Your task to perform on an android device: Open privacy settings Image 0: 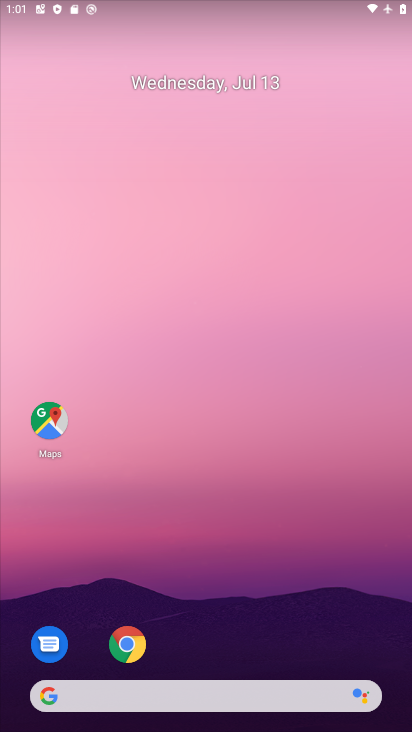
Step 0: drag from (285, 488) to (232, 67)
Your task to perform on an android device: Open privacy settings Image 1: 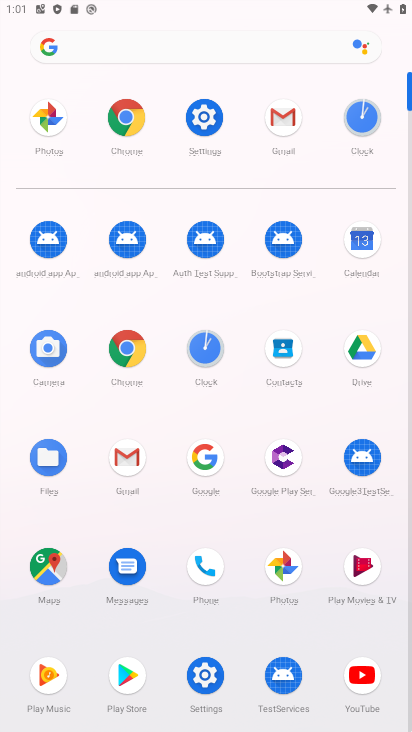
Step 1: click (212, 118)
Your task to perform on an android device: Open privacy settings Image 2: 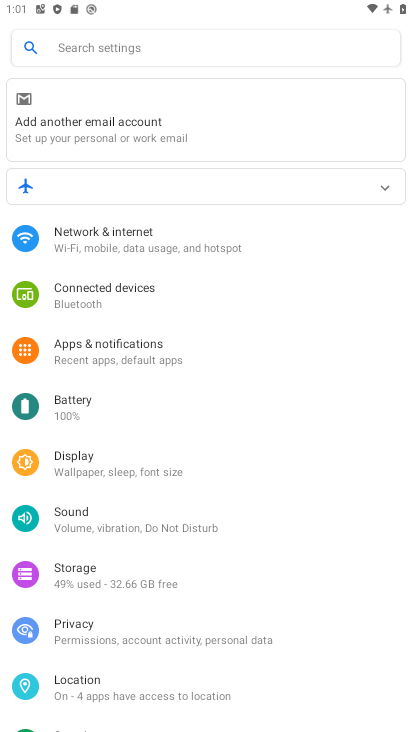
Step 2: click (193, 640)
Your task to perform on an android device: Open privacy settings Image 3: 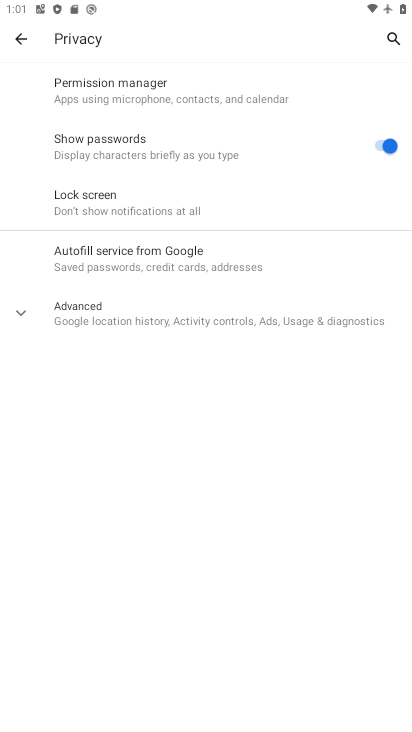
Step 3: task complete